Your task to perform on an android device: open chrome privacy settings Image 0: 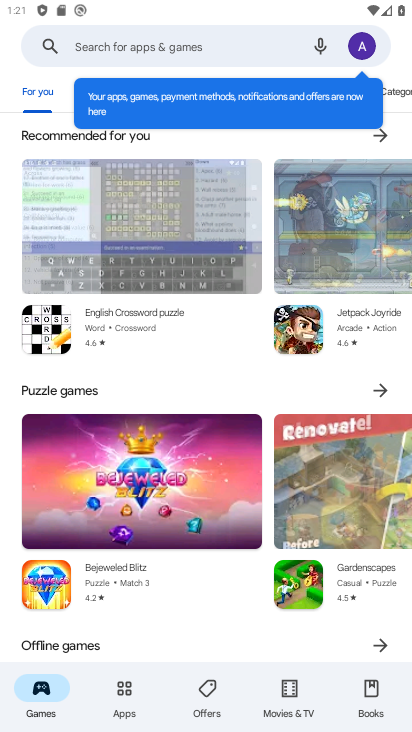
Step 0: press home button
Your task to perform on an android device: open chrome privacy settings Image 1: 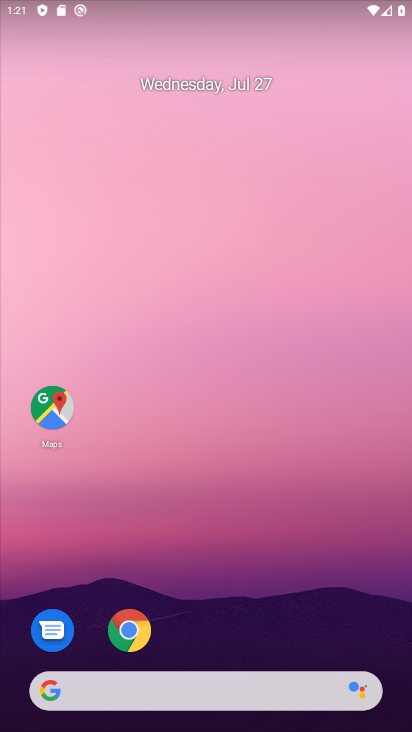
Step 1: click (124, 629)
Your task to perform on an android device: open chrome privacy settings Image 2: 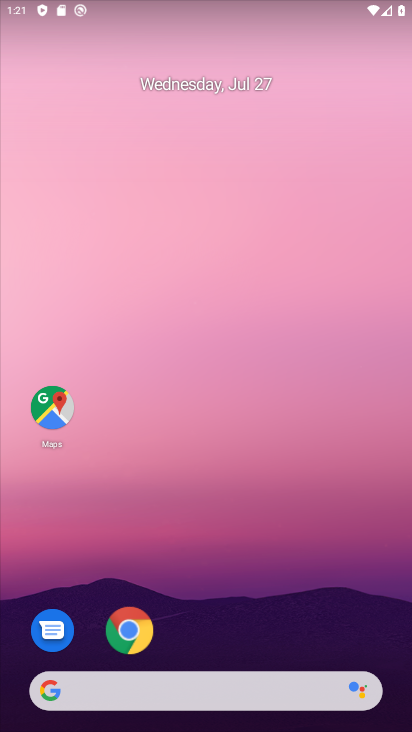
Step 2: click (124, 629)
Your task to perform on an android device: open chrome privacy settings Image 3: 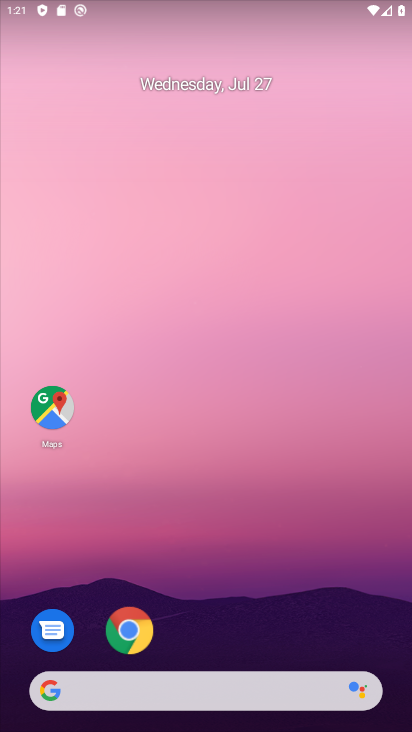
Step 3: click (124, 629)
Your task to perform on an android device: open chrome privacy settings Image 4: 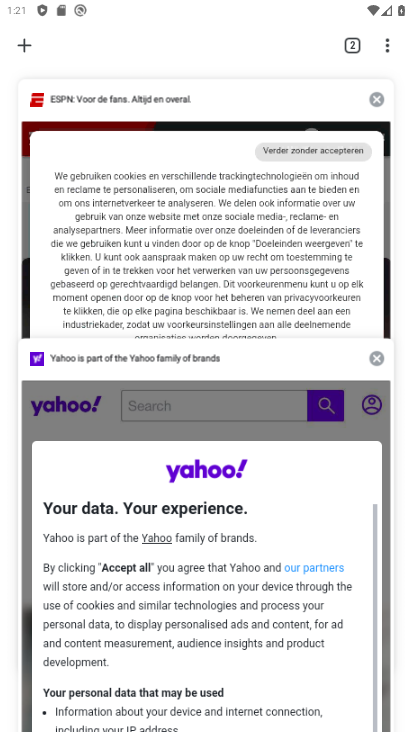
Step 4: click (388, 60)
Your task to perform on an android device: open chrome privacy settings Image 5: 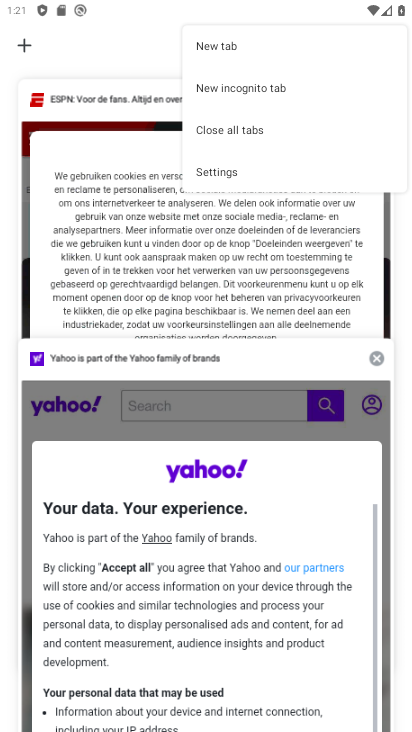
Step 5: click (383, 51)
Your task to perform on an android device: open chrome privacy settings Image 6: 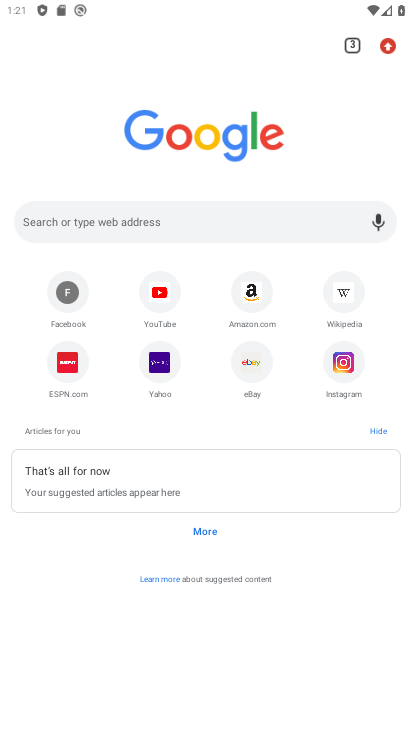
Step 6: click (233, 222)
Your task to perform on an android device: open chrome privacy settings Image 7: 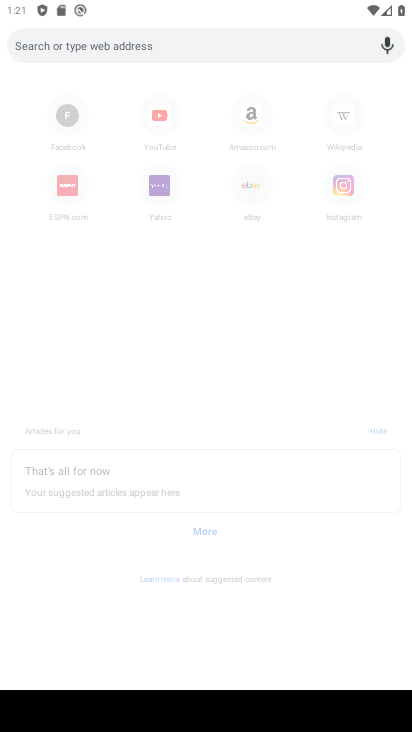
Step 7: click (326, 50)
Your task to perform on an android device: open chrome privacy settings Image 8: 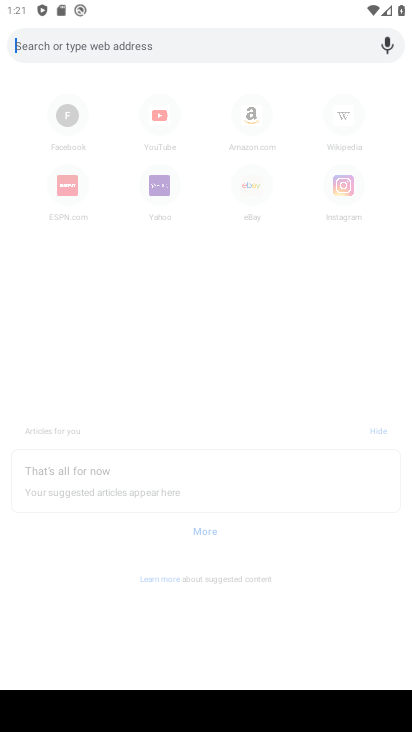
Step 8: press back button
Your task to perform on an android device: open chrome privacy settings Image 9: 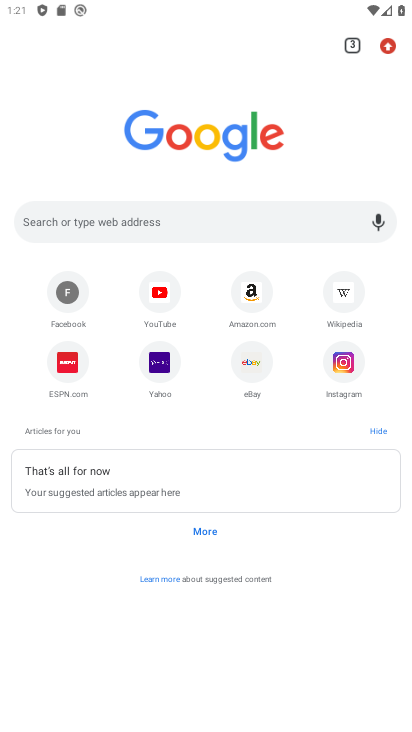
Step 9: press back button
Your task to perform on an android device: open chrome privacy settings Image 10: 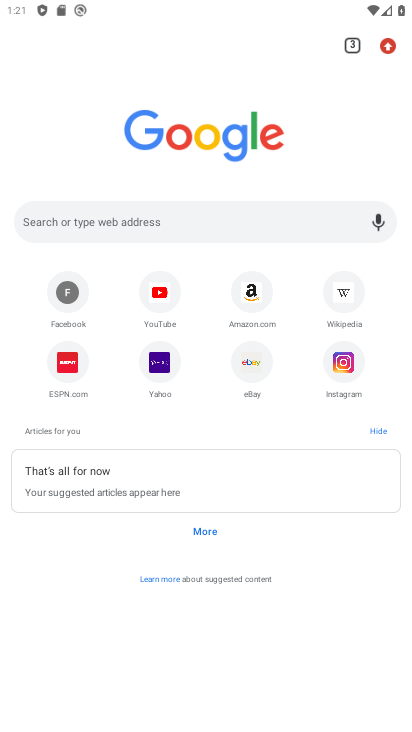
Step 10: press back button
Your task to perform on an android device: open chrome privacy settings Image 11: 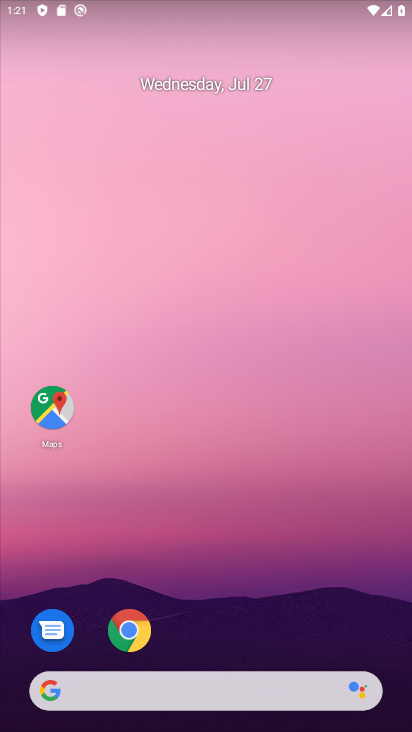
Step 11: click (379, 46)
Your task to perform on an android device: open chrome privacy settings Image 12: 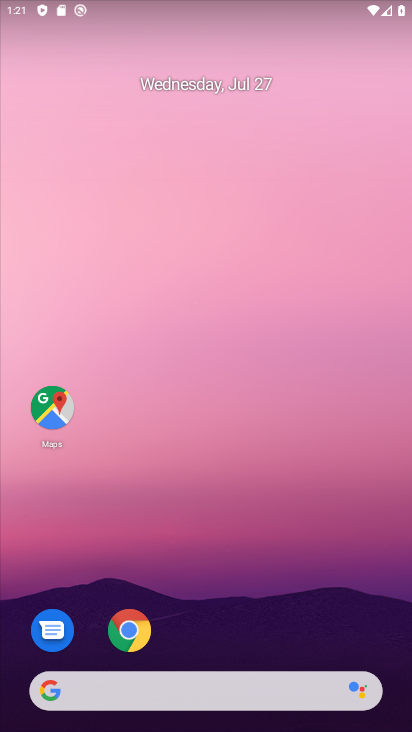
Step 12: click (119, 644)
Your task to perform on an android device: open chrome privacy settings Image 13: 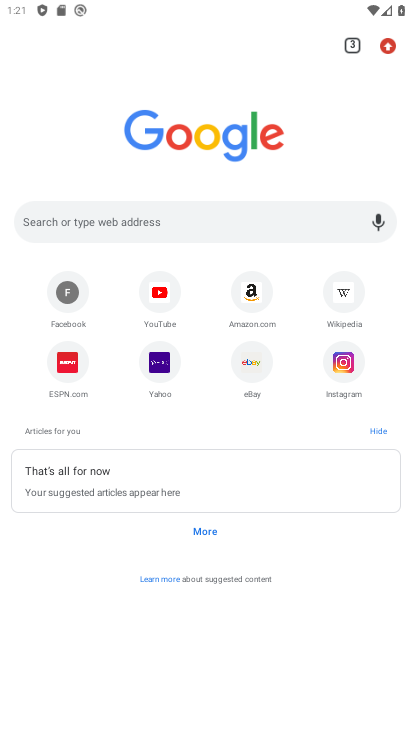
Step 13: click (386, 44)
Your task to perform on an android device: open chrome privacy settings Image 14: 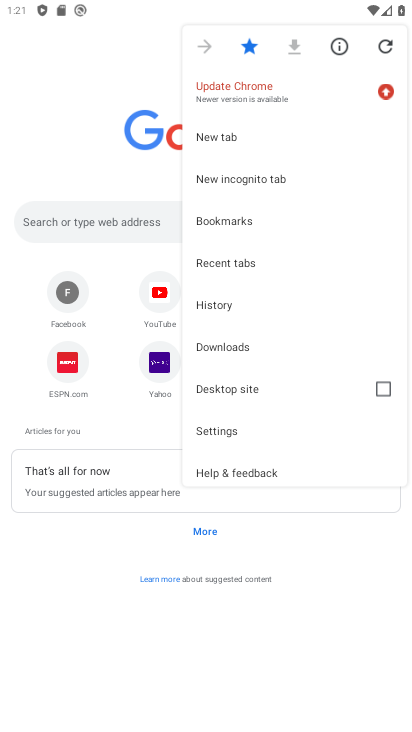
Step 14: click (235, 432)
Your task to perform on an android device: open chrome privacy settings Image 15: 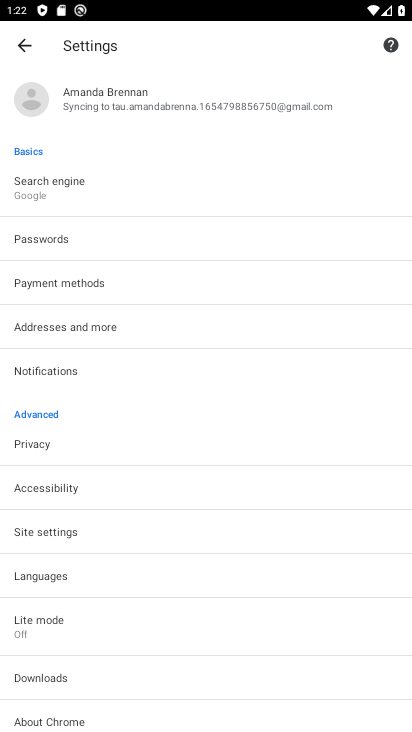
Step 15: click (53, 447)
Your task to perform on an android device: open chrome privacy settings Image 16: 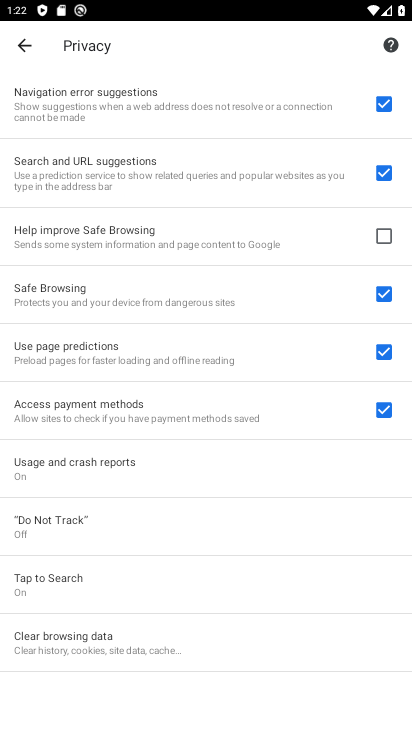
Step 16: task complete